Your task to perform on an android device: Do I have any events tomorrow? Image 0: 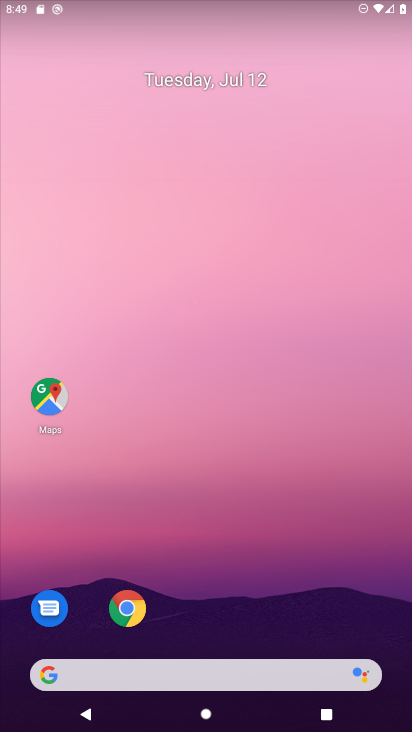
Step 0: click (188, 82)
Your task to perform on an android device: Do I have any events tomorrow? Image 1: 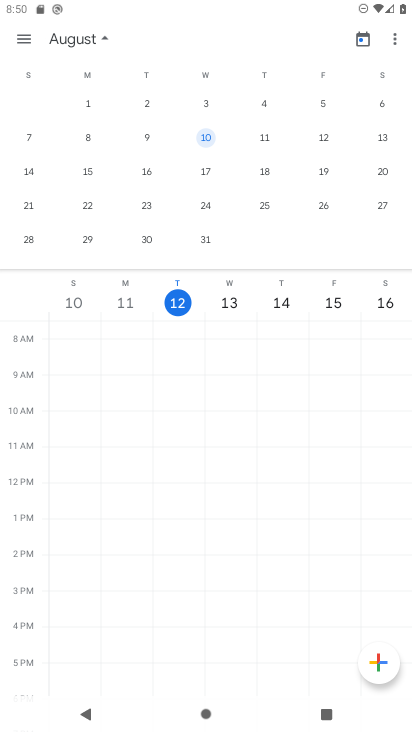
Step 1: drag from (16, 216) to (405, 211)
Your task to perform on an android device: Do I have any events tomorrow? Image 2: 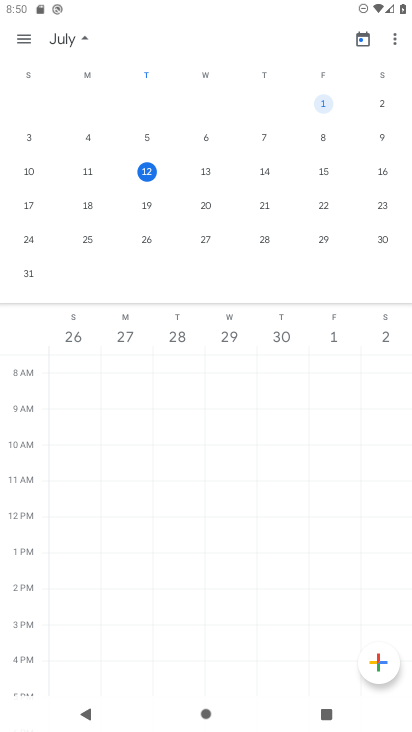
Step 2: click (211, 175)
Your task to perform on an android device: Do I have any events tomorrow? Image 3: 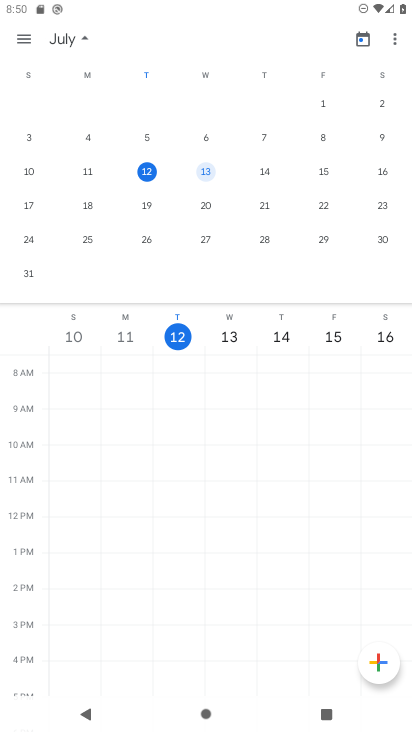
Step 3: click (209, 174)
Your task to perform on an android device: Do I have any events tomorrow? Image 4: 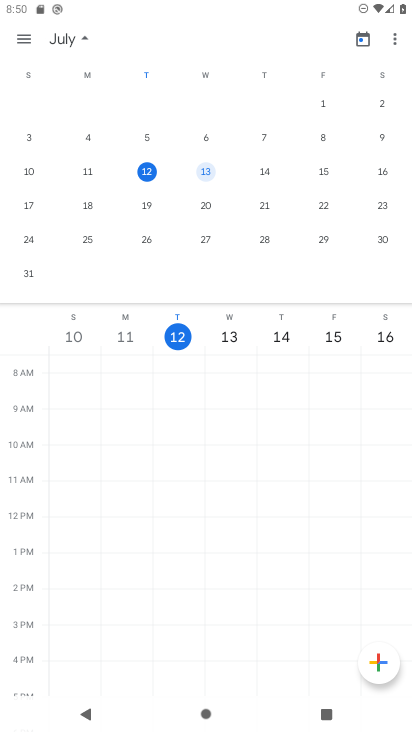
Step 4: click (32, 38)
Your task to perform on an android device: Do I have any events tomorrow? Image 5: 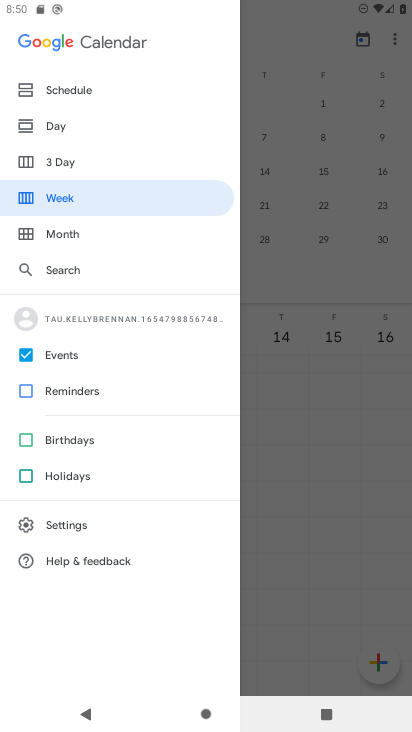
Step 5: click (96, 132)
Your task to perform on an android device: Do I have any events tomorrow? Image 6: 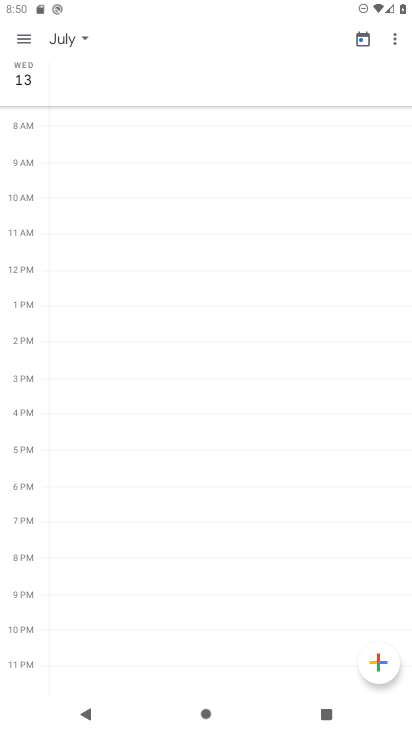
Step 6: task complete